Your task to perform on an android device: open chrome and create a bookmark for the current page Image 0: 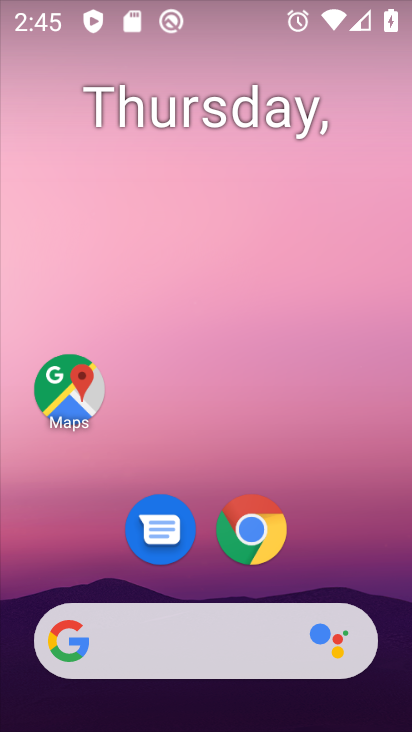
Step 0: click (252, 526)
Your task to perform on an android device: open chrome and create a bookmark for the current page Image 1: 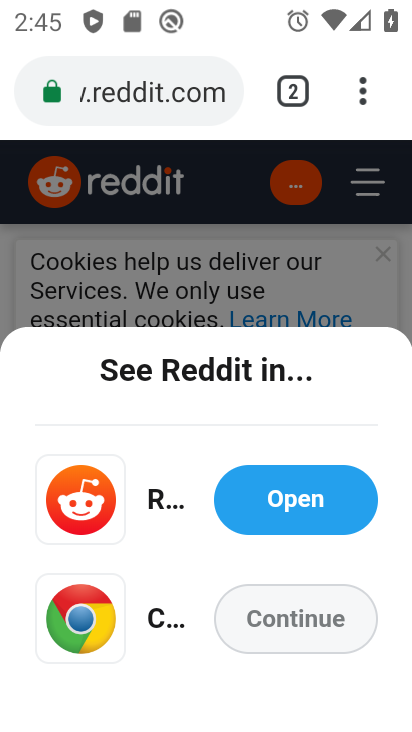
Step 1: click (360, 96)
Your task to perform on an android device: open chrome and create a bookmark for the current page Image 2: 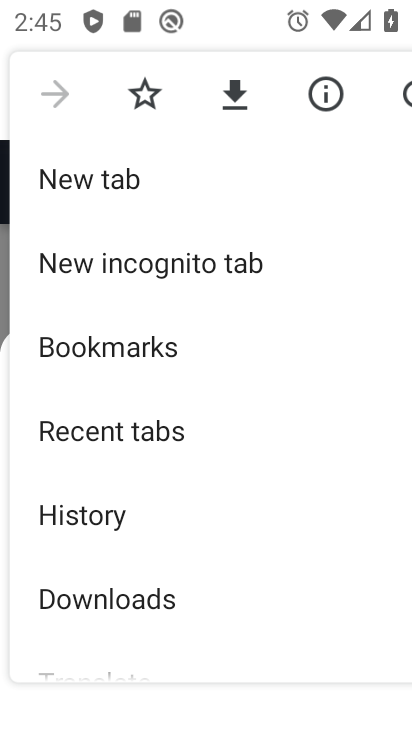
Step 2: click (158, 88)
Your task to perform on an android device: open chrome and create a bookmark for the current page Image 3: 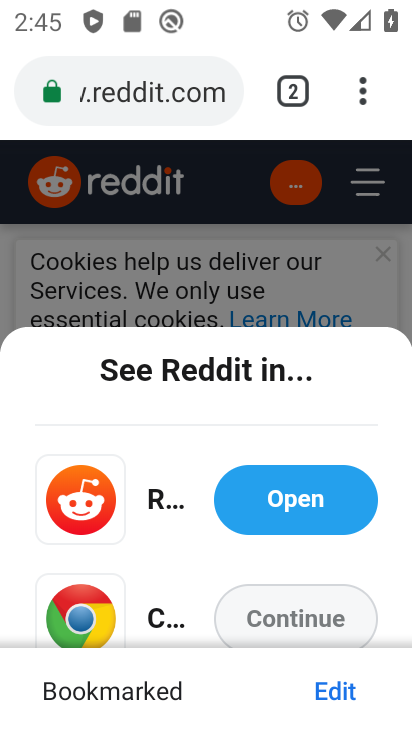
Step 3: task complete